Your task to perform on an android device: Open Google Image 0: 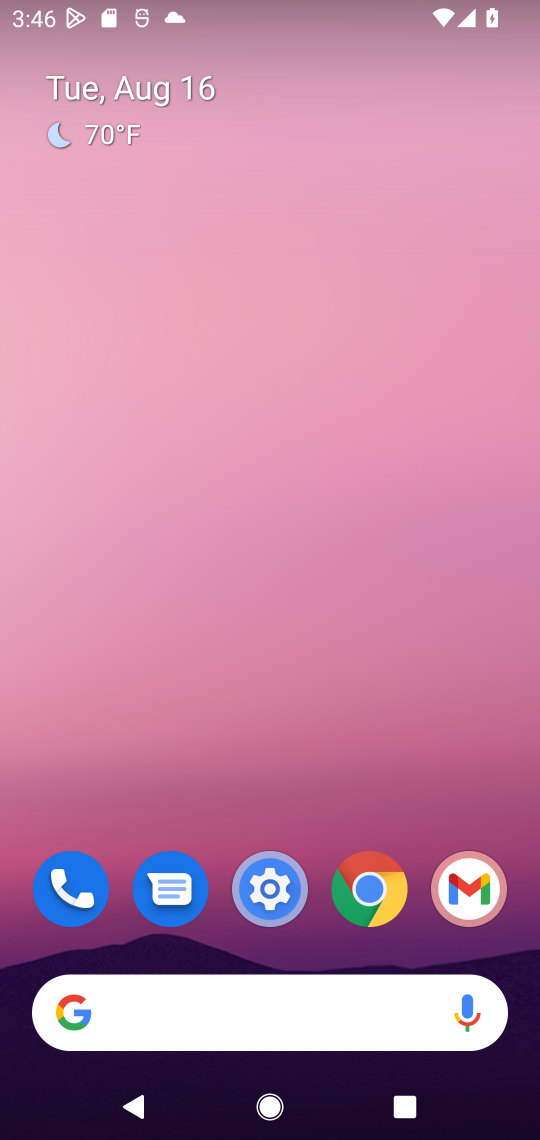
Step 0: drag from (358, 767) to (375, 196)
Your task to perform on an android device: Open Google Image 1: 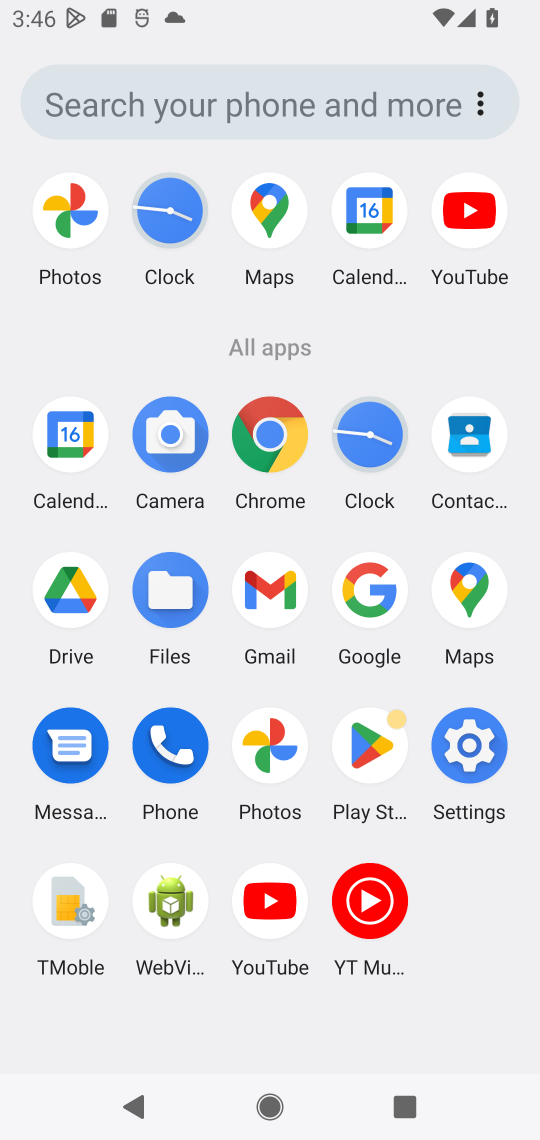
Step 1: click (368, 596)
Your task to perform on an android device: Open Google Image 2: 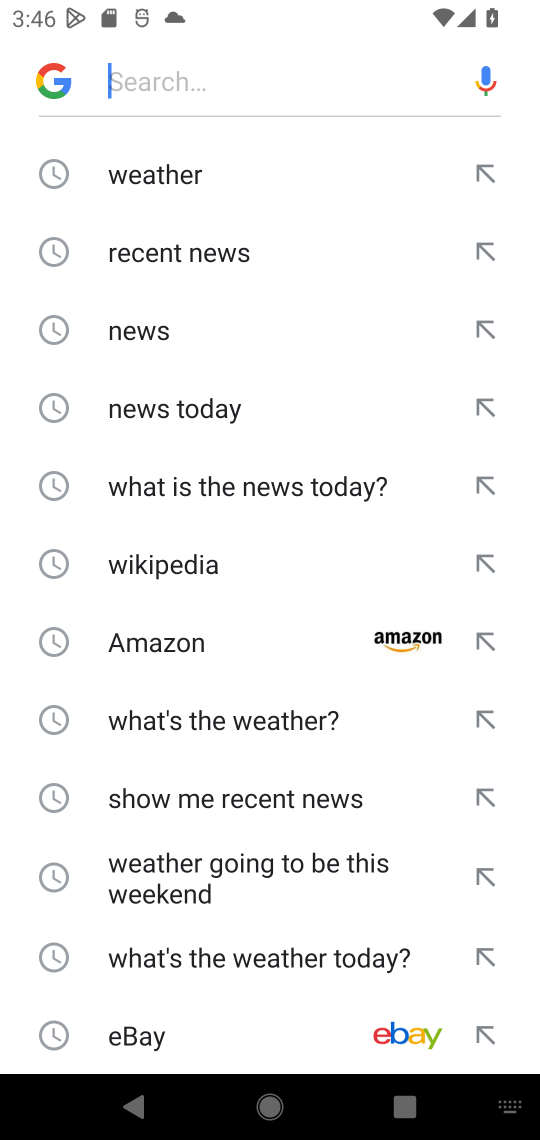
Step 2: task complete